Your task to perform on an android device: turn on translation in the chrome app Image 0: 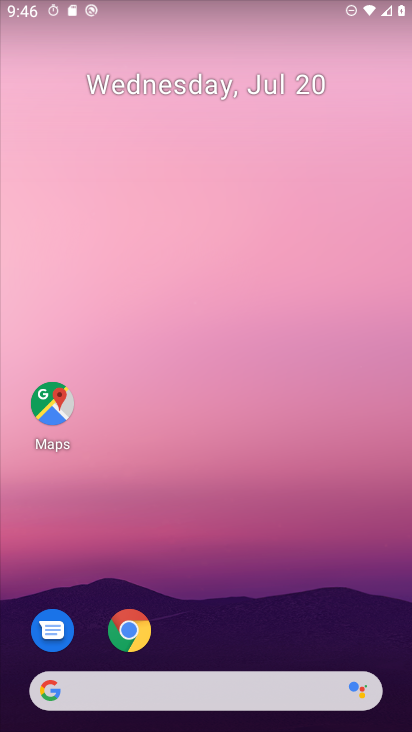
Step 0: drag from (189, 676) to (176, 233)
Your task to perform on an android device: turn on translation in the chrome app Image 1: 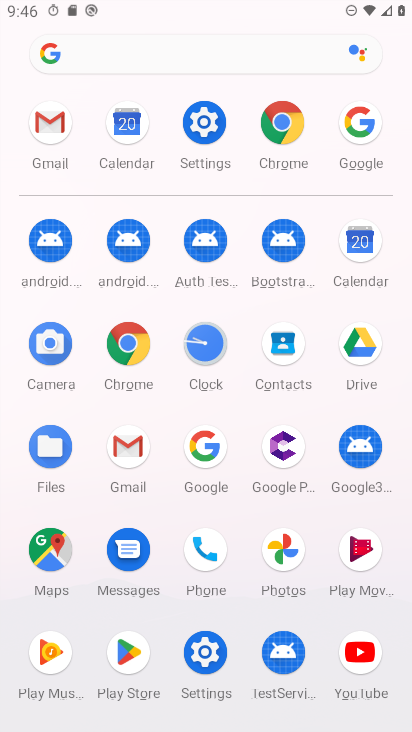
Step 1: click (142, 371)
Your task to perform on an android device: turn on translation in the chrome app Image 2: 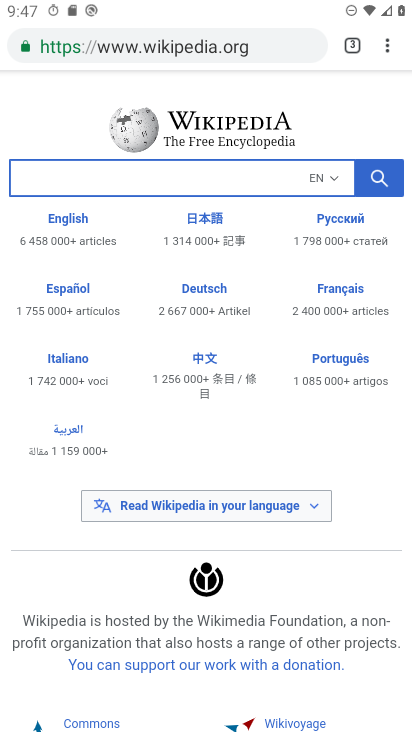
Step 2: click (385, 57)
Your task to perform on an android device: turn on translation in the chrome app Image 3: 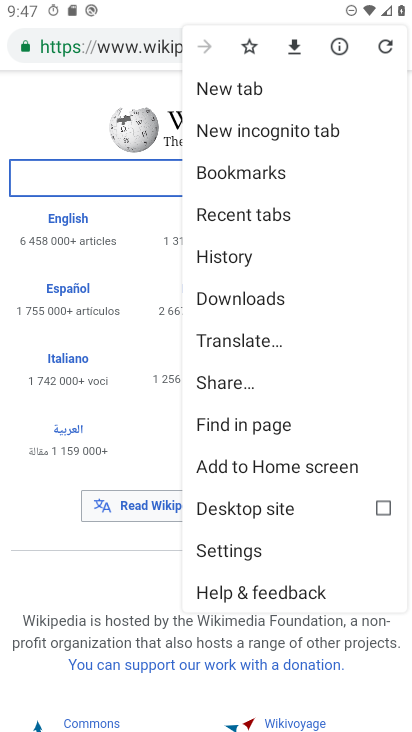
Step 3: click (266, 345)
Your task to perform on an android device: turn on translation in the chrome app Image 4: 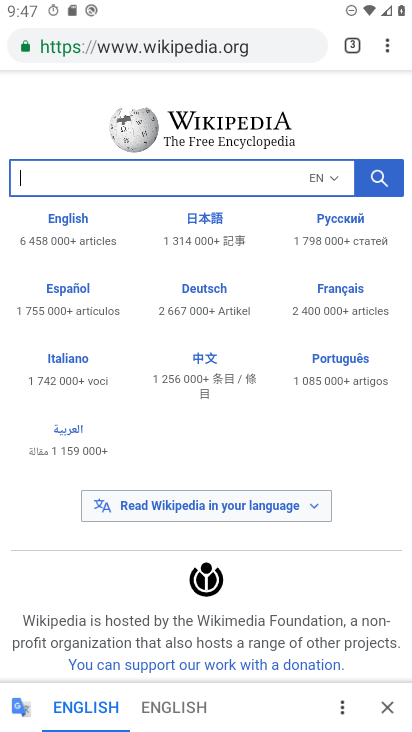
Step 4: click (345, 710)
Your task to perform on an android device: turn on translation in the chrome app Image 5: 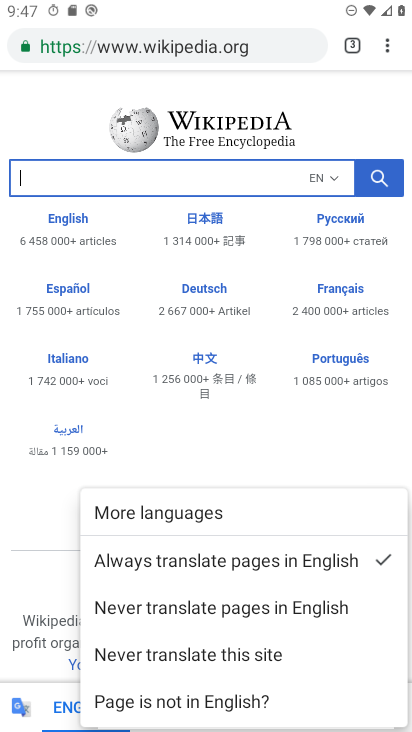
Step 5: task complete